Your task to perform on an android device: Check the weather Image 0: 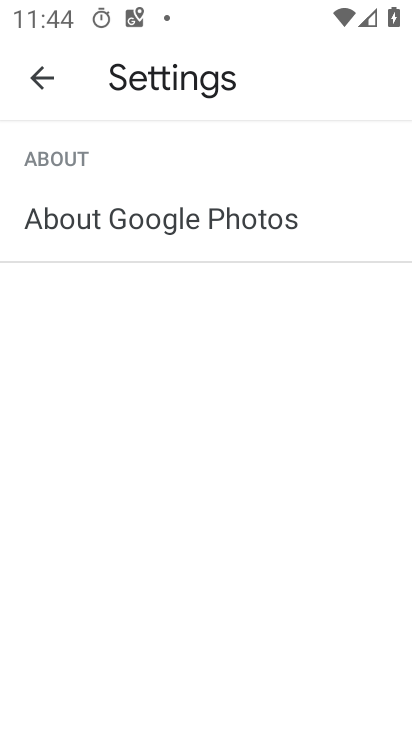
Step 0: press home button
Your task to perform on an android device: Check the weather Image 1: 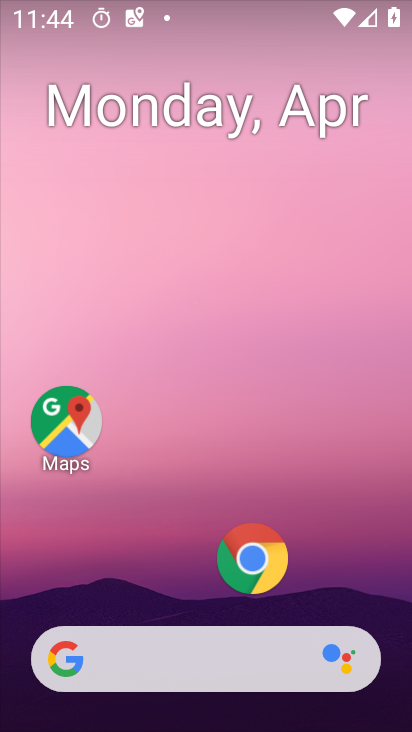
Step 1: click (255, 563)
Your task to perform on an android device: Check the weather Image 2: 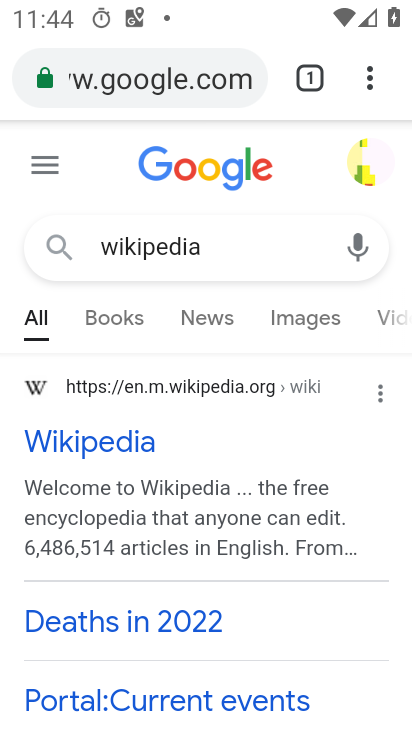
Step 2: click (244, 256)
Your task to perform on an android device: Check the weather Image 3: 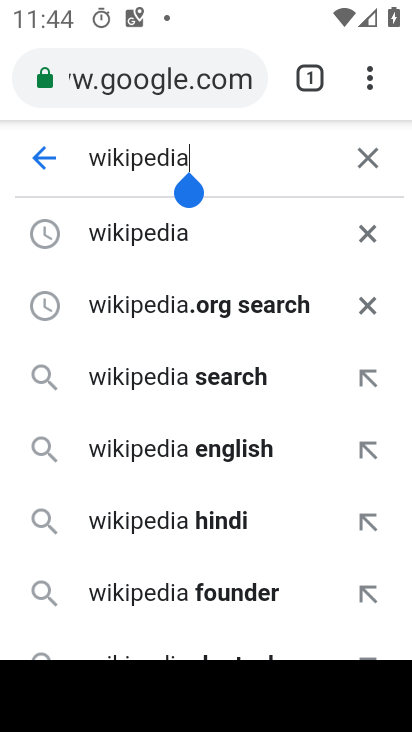
Step 3: click (372, 154)
Your task to perform on an android device: Check the weather Image 4: 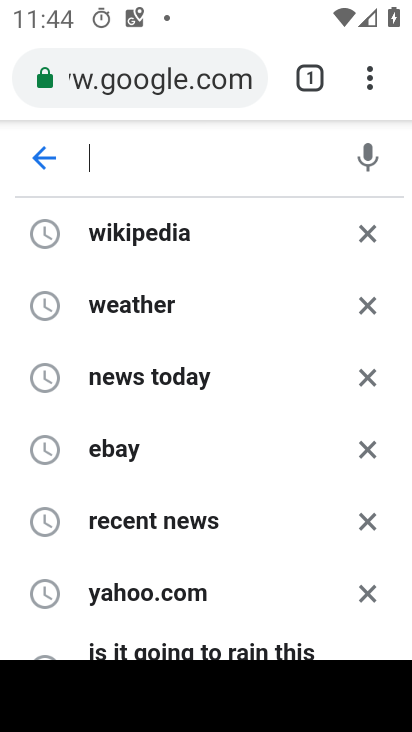
Step 4: type "weather"
Your task to perform on an android device: Check the weather Image 5: 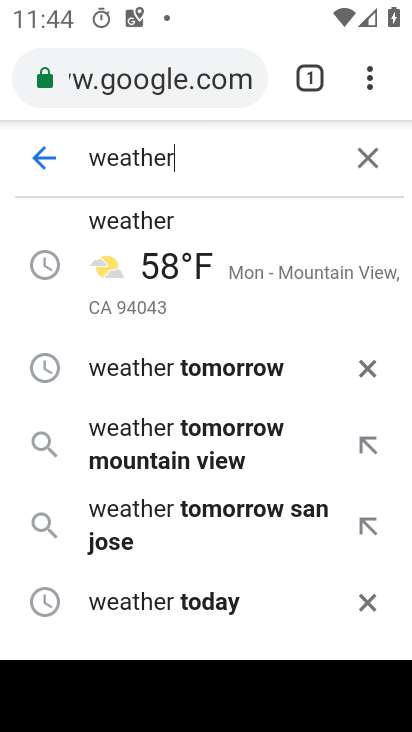
Step 5: click (165, 231)
Your task to perform on an android device: Check the weather Image 6: 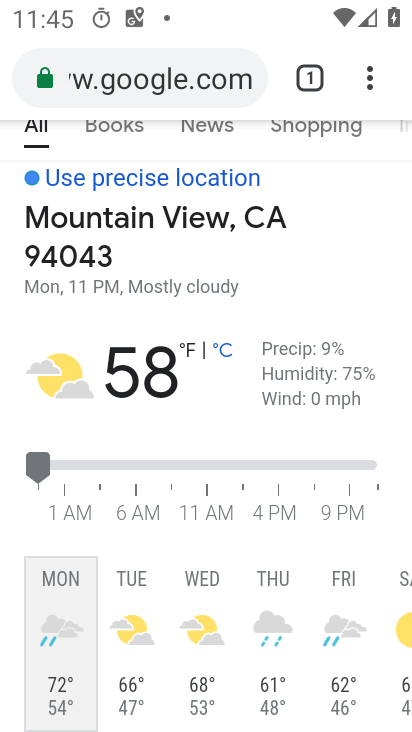
Step 6: task complete